Your task to perform on an android device: Open CNN.com Image 0: 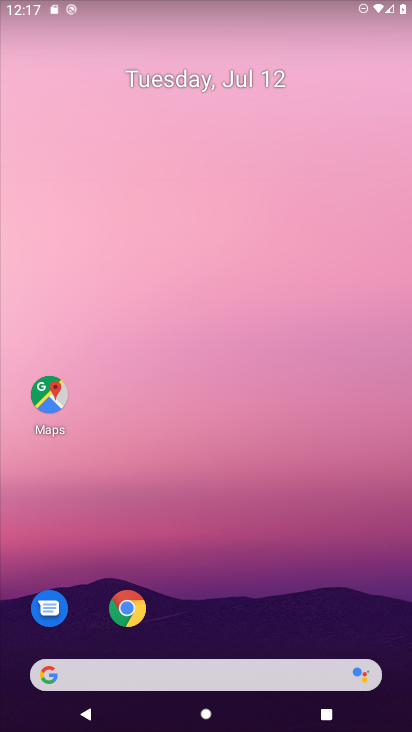
Step 0: drag from (214, 634) to (132, 7)
Your task to perform on an android device: Open CNN.com Image 1: 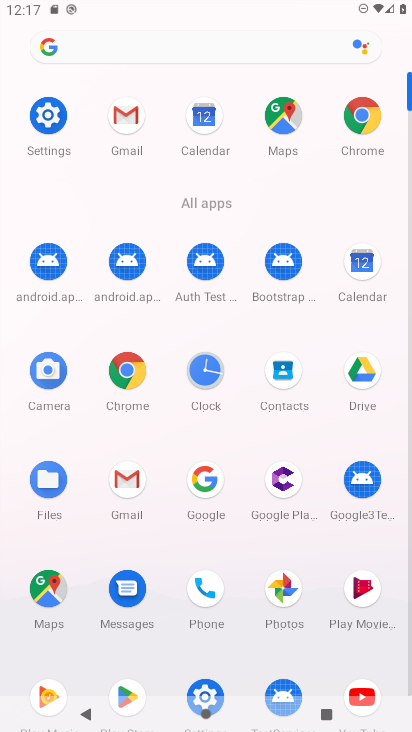
Step 1: click (369, 123)
Your task to perform on an android device: Open CNN.com Image 2: 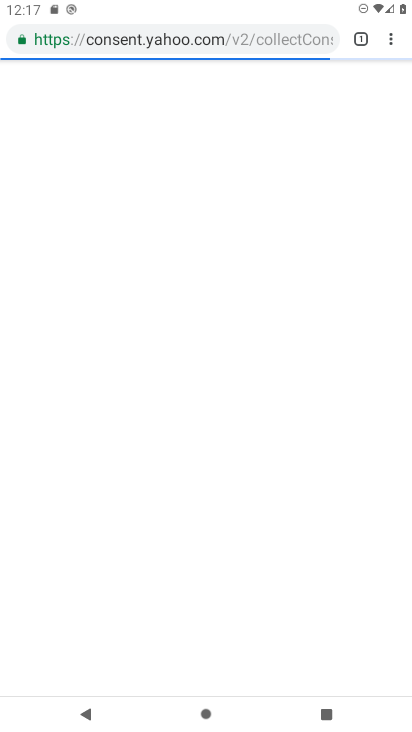
Step 2: click (347, 37)
Your task to perform on an android device: Open CNN.com Image 3: 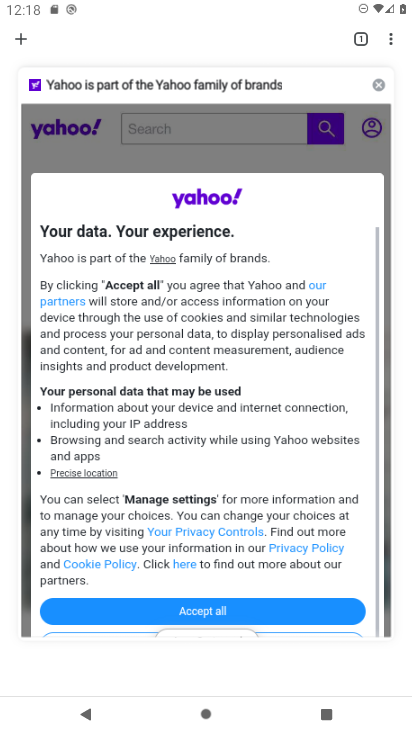
Step 3: click (19, 36)
Your task to perform on an android device: Open CNN.com Image 4: 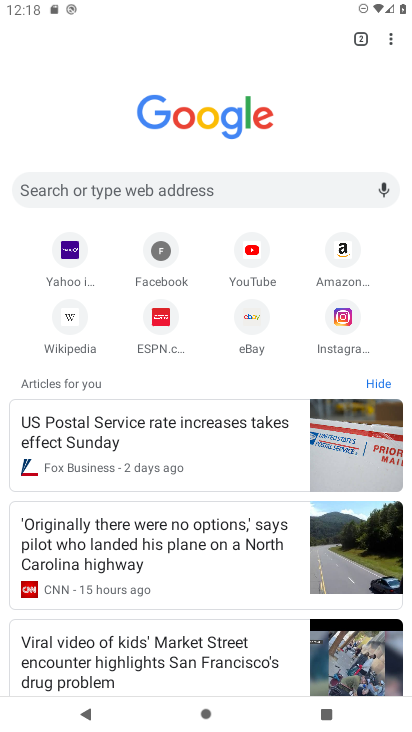
Step 4: click (173, 177)
Your task to perform on an android device: Open CNN.com Image 5: 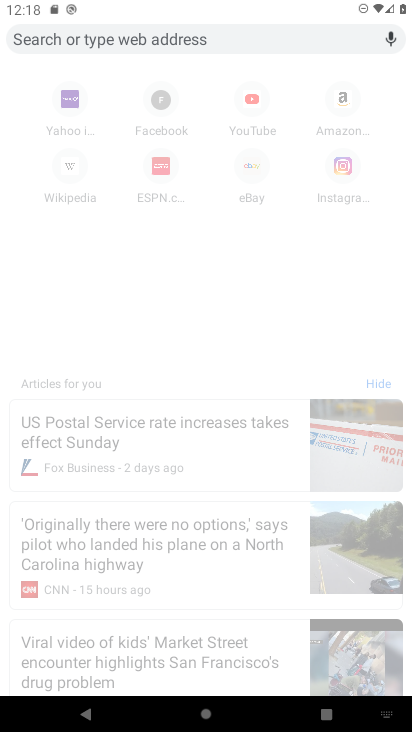
Step 5: type "cnn"
Your task to perform on an android device: Open CNN.com Image 6: 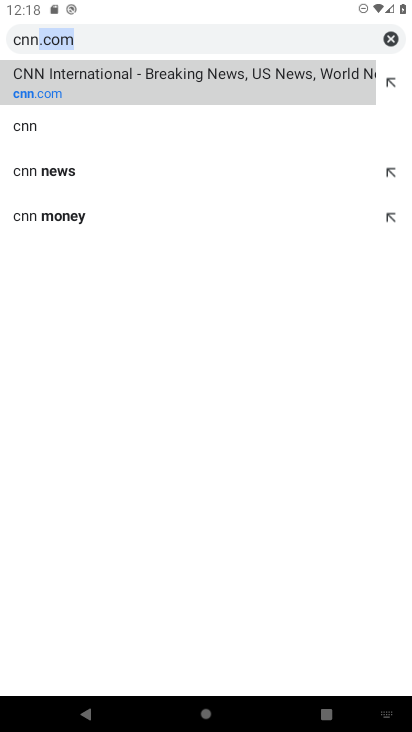
Step 6: type ""
Your task to perform on an android device: Open CNN.com Image 7: 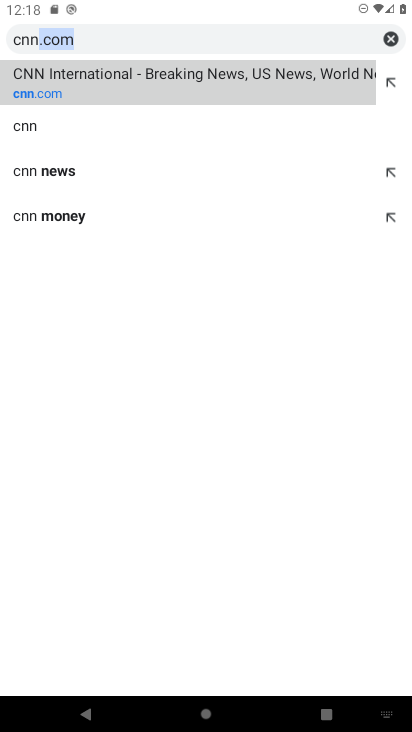
Step 7: click (26, 97)
Your task to perform on an android device: Open CNN.com Image 8: 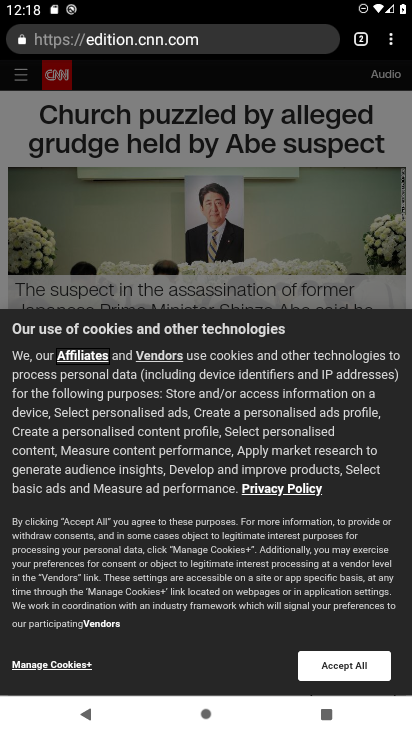
Step 8: task complete